Your task to perform on an android device: What's the weather today? Image 0: 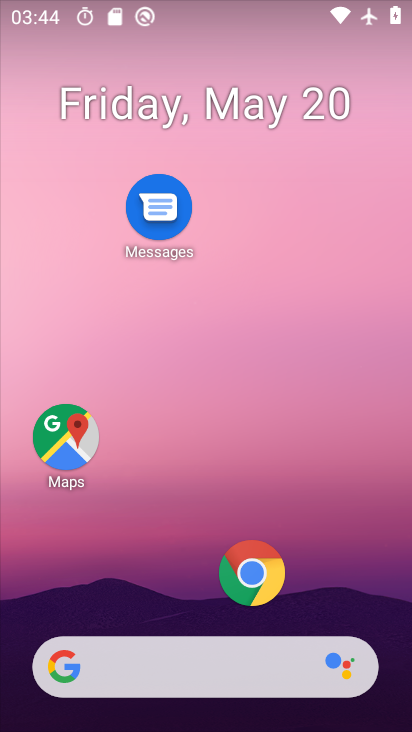
Step 0: drag from (200, 617) to (231, 188)
Your task to perform on an android device: What's the weather today? Image 1: 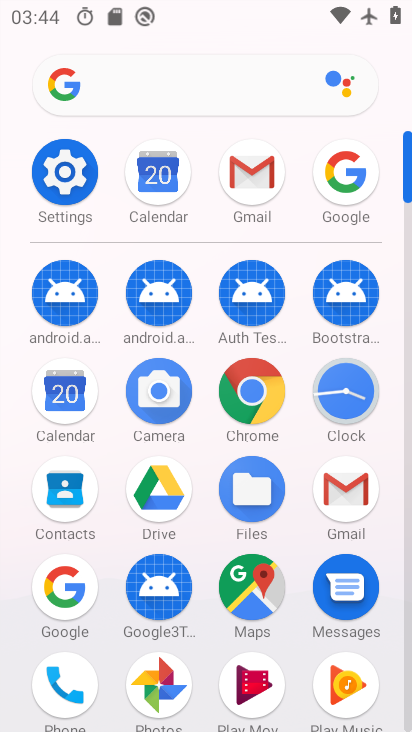
Step 1: click (53, 574)
Your task to perform on an android device: What's the weather today? Image 2: 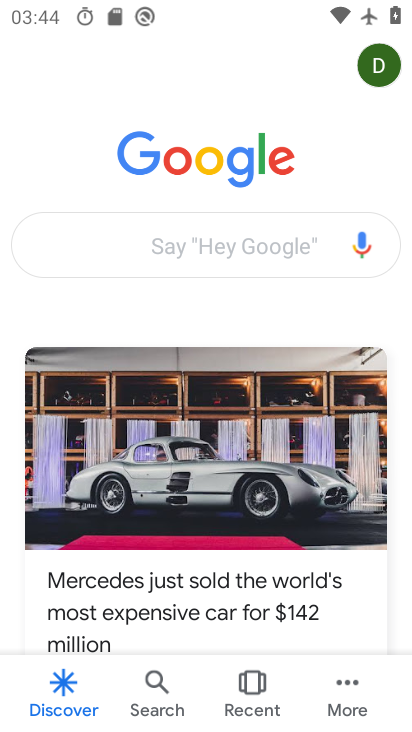
Step 2: click (187, 243)
Your task to perform on an android device: What's the weather today? Image 3: 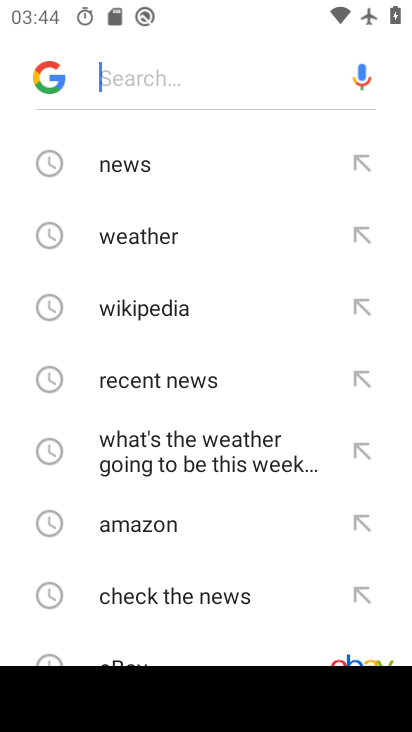
Step 3: click (191, 230)
Your task to perform on an android device: What's the weather today? Image 4: 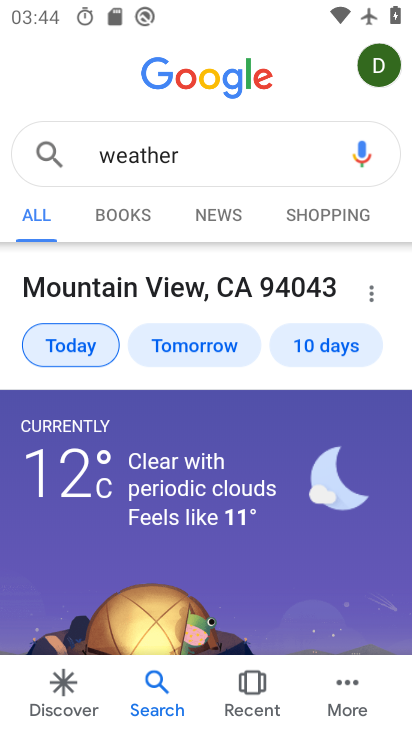
Step 4: task complete